Your task to perform on an android device: Search for logitech g pro on newegg.com, select the first entry, and add it to the cart. Image 0: 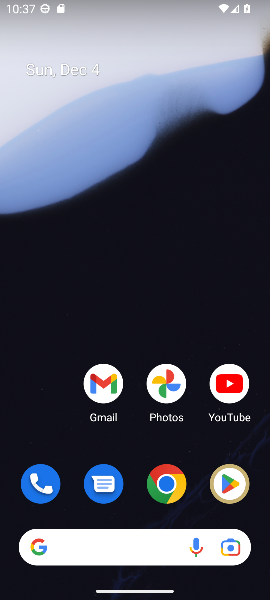
Step 0: click (167, 481)
Your task to perform on an android device: Search for logitech g pro on newegg.com, select the first entry, and add it to the cart. Image 1: 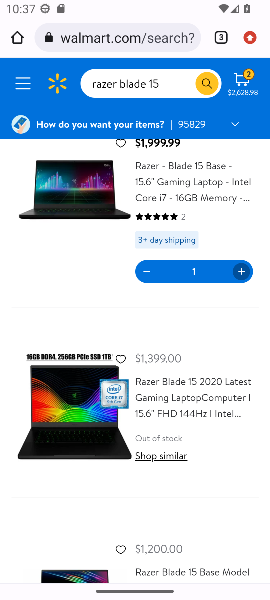
Step 1: click (128, 40)
Your task to perform on an android device: Search for logitech g pro on newegg.com, select the first entry, and add it to the cart. Image 2: 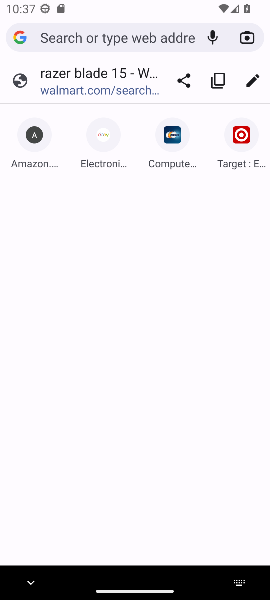
Step 2: click (162, 148)
Your task to perform on an android device: Search for logitech g pro on newegg.com, select the first entry, and add it to the cart. Image 3: 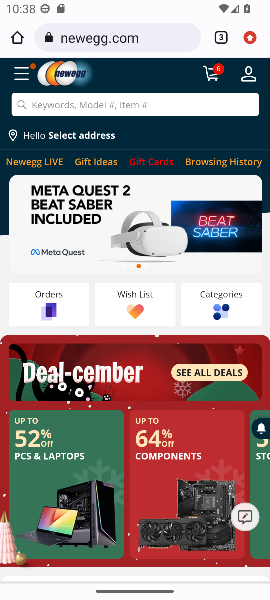
Step 3: click (51, 106)
Your task to perform on an android device: Search for logitech g pro on newegg.com, select the first entry, and add it to the cart. Image 4: 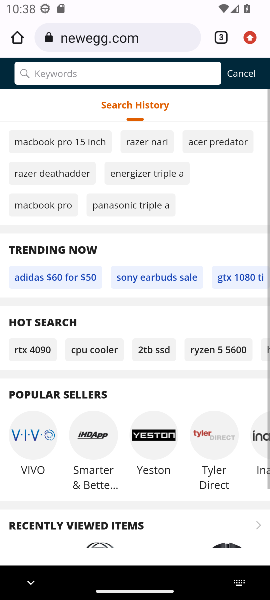
Step 4: type "logitech g pro"
Your task to perform on an android device: Search for logitech g pro on newegg.com, select the first entry, and add it to the cart. Image 5: 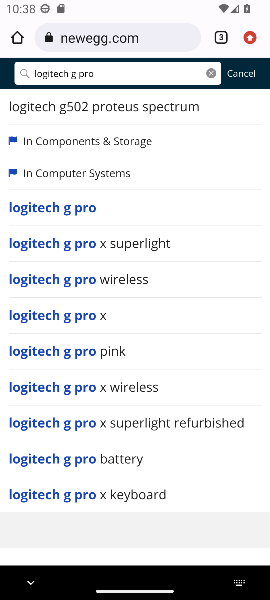
Step 5: click (64, 211)
Your task to perform on an android device: Search for logitech g pro on newegg.com, select the first entry, and add it to the cart. Image 6: 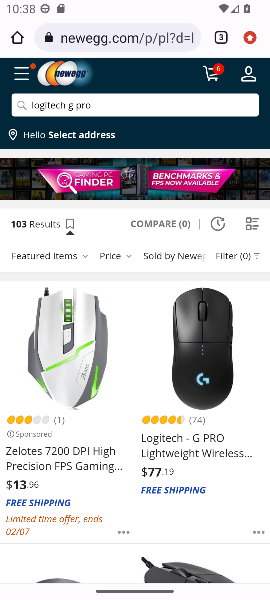
Step 6: task complete